Your task to perform on an android device: find which apps use the phone's location Image 0: 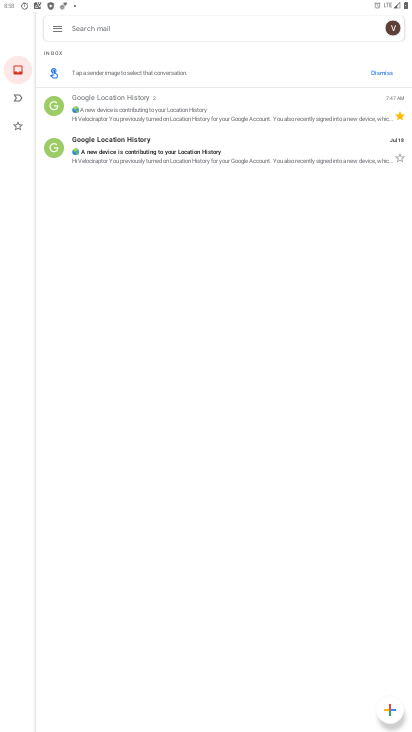
Step 0: press home button
Your task to perform on an android device: find which apps use the phone's location Image 1: 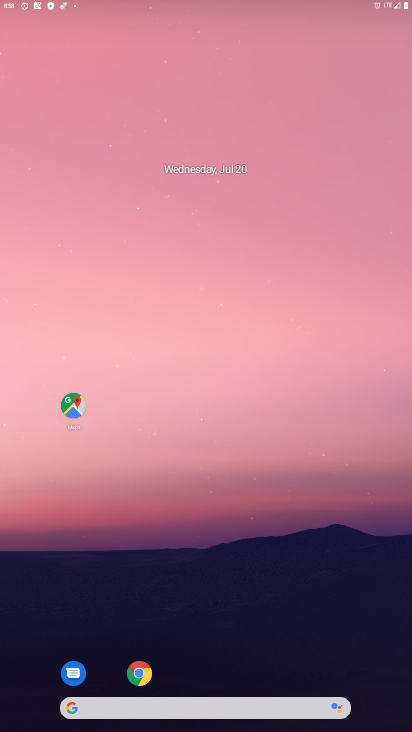
Step 1: drag from (210, 678) to (199, 47)
Your task to perform on an android device: find which apps use the phone's location Image 2: 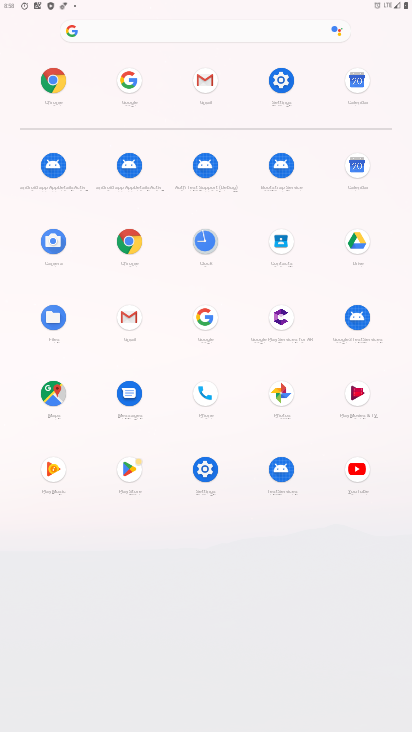
Step 2: click (281, 80)
Your task to perform on an android device: find which apps use the phone's location Image 3: 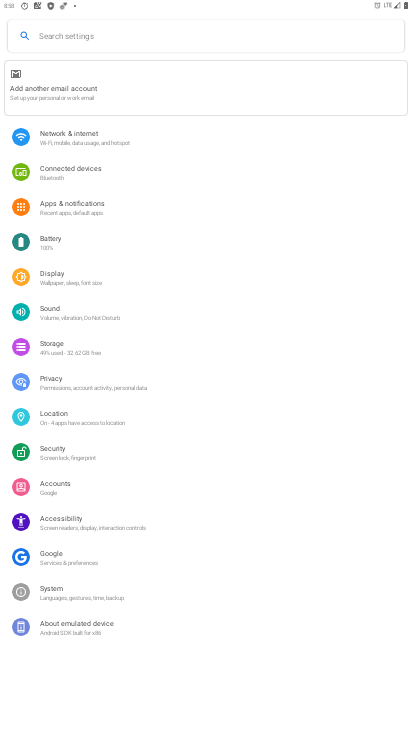
Step 3: click (100, 419)
Your task to perform on an android device: find which apps use the phone's location Image 4: 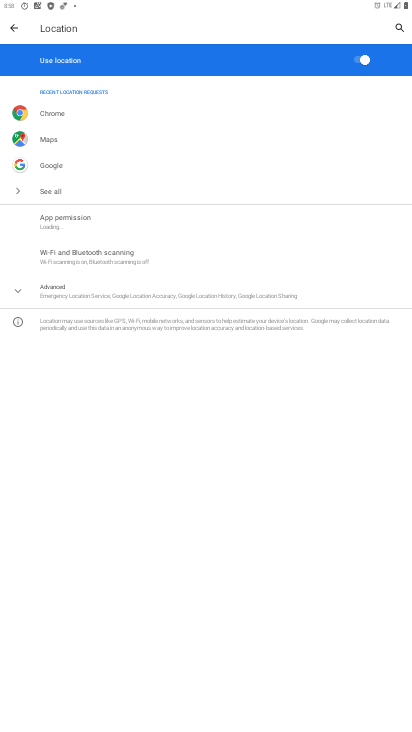
Step 4: click (62, 230)
Your task to perform on an android device: find which apps use the phone's location Image 5: 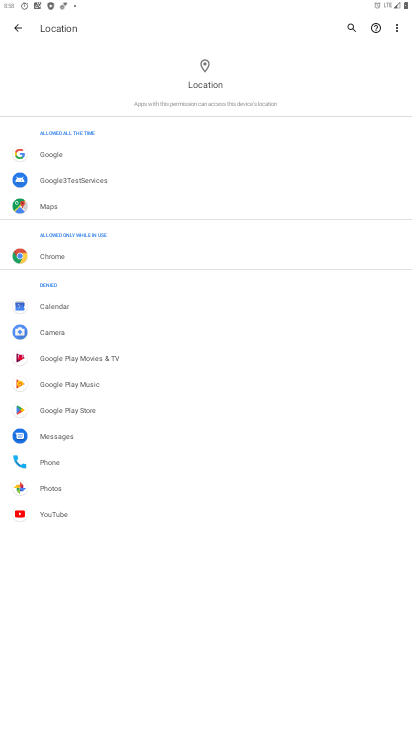
Step 5: task complete